Your task to perform on an android device: Search for Mexican restaurants on Maps Image 0: 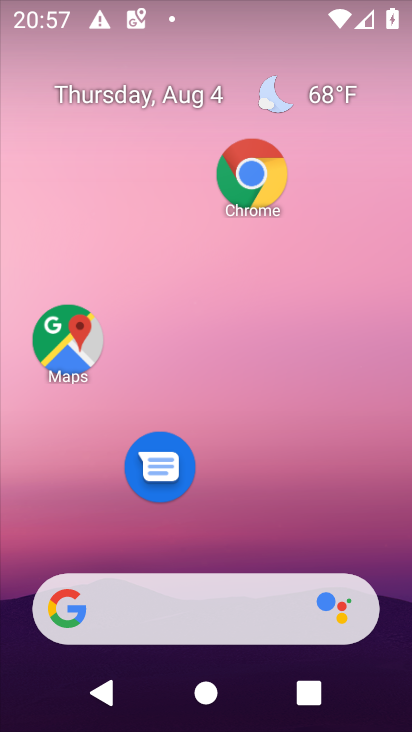
Step 0: press home button
Your task to perform on an android device: Search for Mexican restaurants on Maps Image 1: 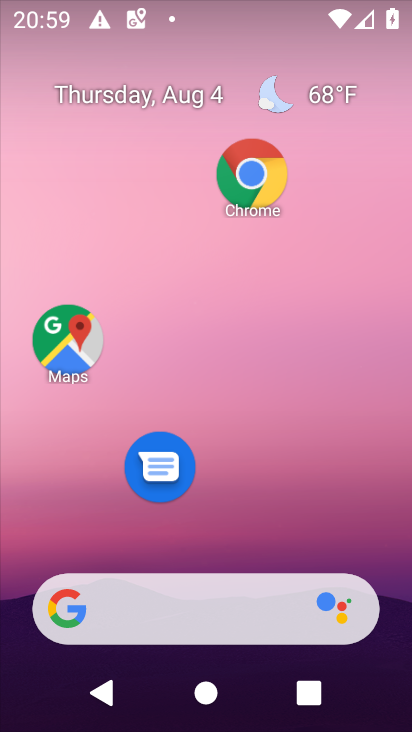
Step 1: drag from (303, 581) to (203, 34)
Your task to perform on an android device: Search for Mexican restaurants on Maps Image 2: 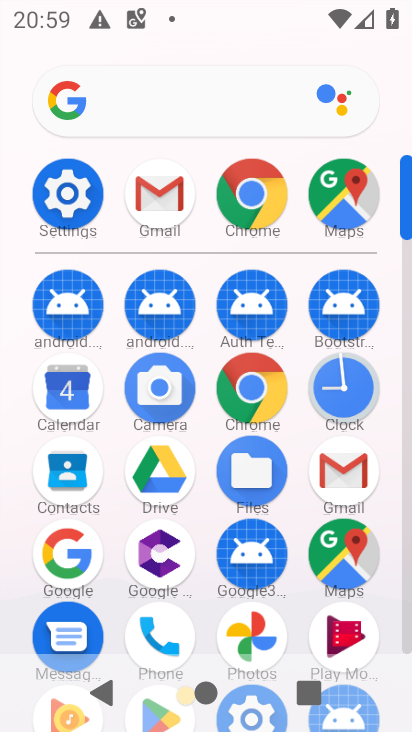
Step 2: click (352, 199)
Your task to perform on an android device: Search for Mexican restaurants on Maps Image 3: 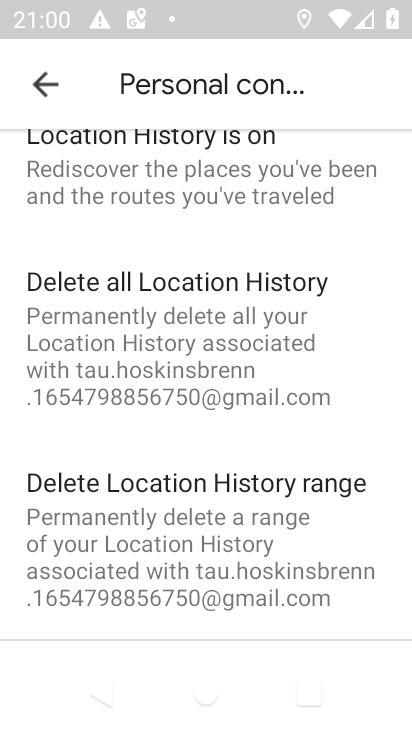
Step 3: click (85, 407)
Your task to perform on an android device: Search for Mexican restaurants on Maps Image 4: 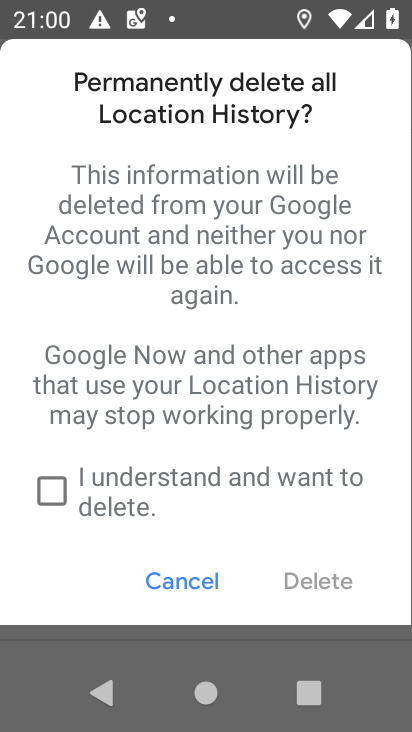
Step 4: click (133, 511)
Your task to perform on an android device: Search for Mexican restaurants on Maps Image 5: 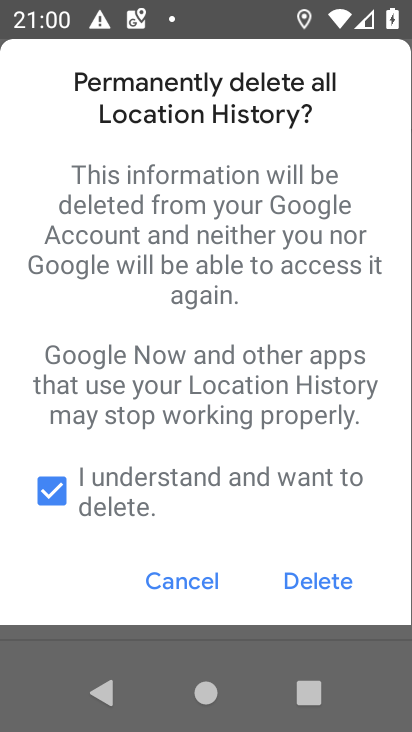
Step 5: click (345, 562)
Your task to perform on an android device: Search for Mexican restaurants on Maps Image 6: 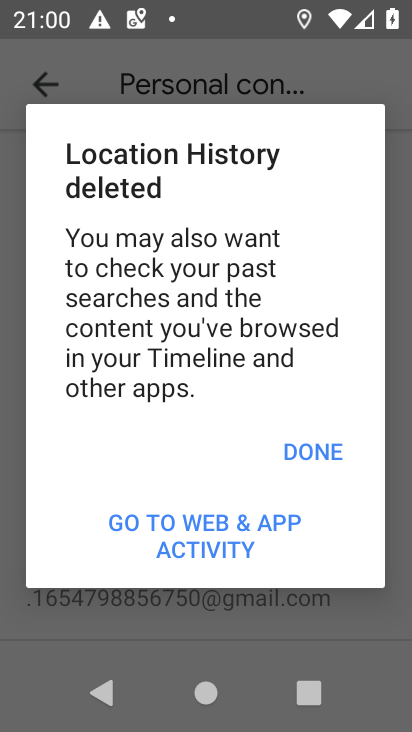
Step 6: task complete